Your task to perform on an android device: Show me recent news Image 0: 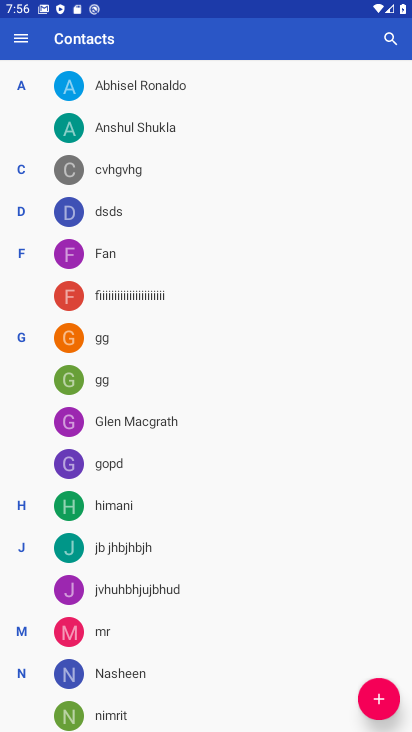
Step 0: press home button
Your task to perform on an android device: Show me recent news Image 1: 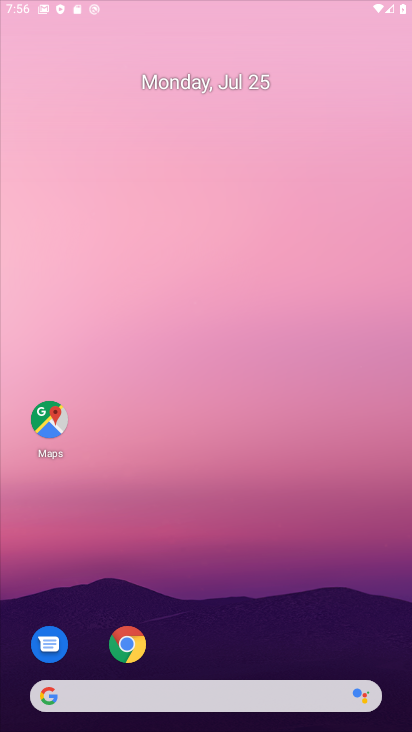
Step 1: drag from (274, 604) to (364, 47)
Your task to perform on an android device: Show me recent news Image 2: 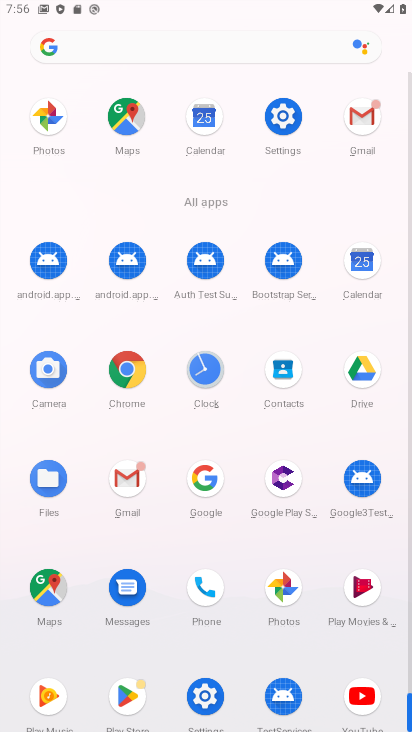
Step 2: click (200, 485)
Your task to perform on an android device: Show me recent news Image 3: 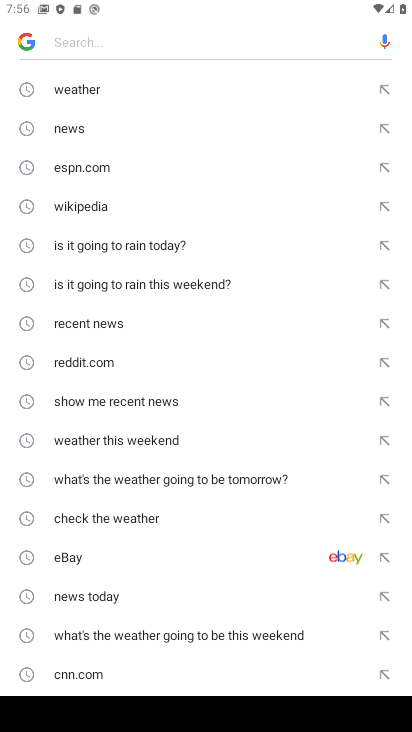
Step 3: click (100, 600)
Your task to perform on an android device: Show me recent news Image 4: 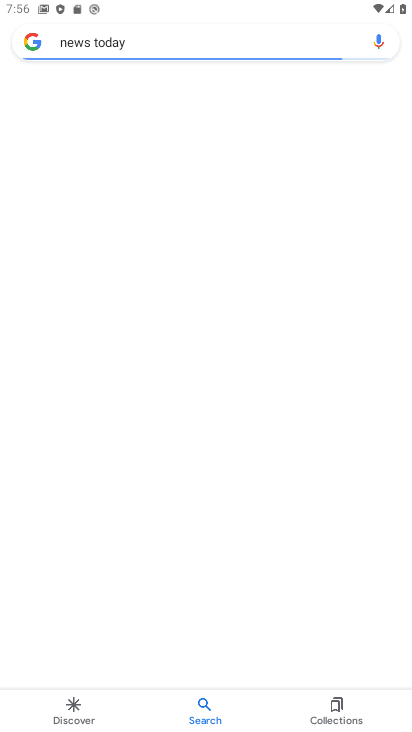
Step 4: task complete